Your task to perform on an android device: open wifi settings Image 0: 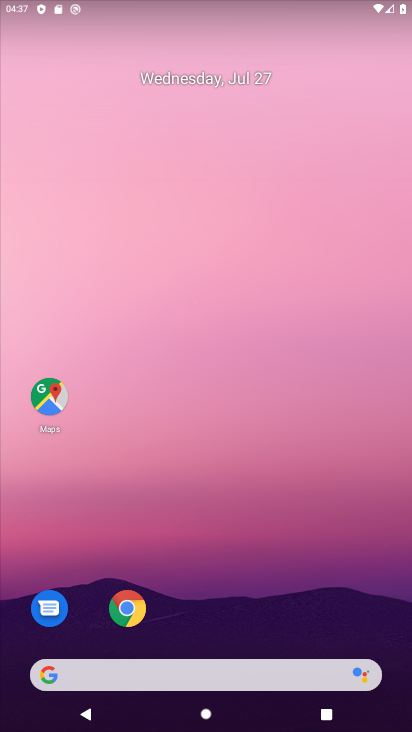
Step 0: press home button
Your task to perform on an android device: open wifi settings Image 1: 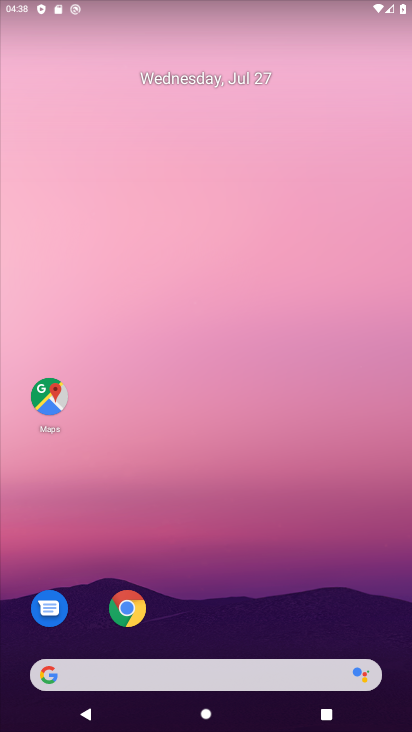
Step 1: drag from (236, 608) to (220, 459)
Your task to perform on an android device: open wifi settings Image 2: 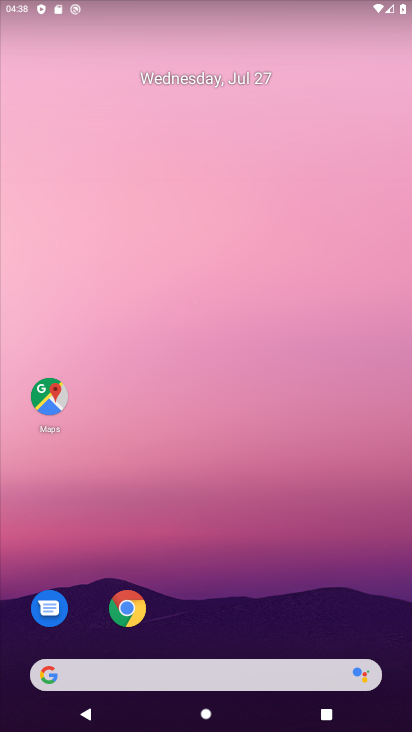
Step 2: drag from (240, 614) to (205, 133)
Your task to perform on an android device: open wifi settings Image 3: 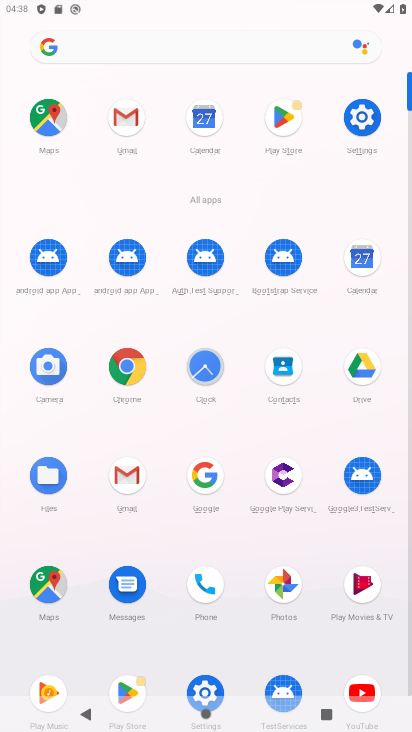
Step 3: click (365, 117)
Your task to perform on an android device: open wifi settings Image 4: 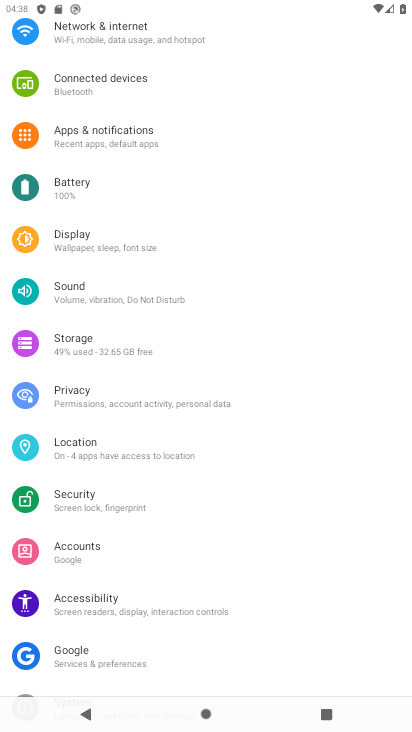
Step 4: click (96, 32)
Your task to perform on an android device: open wifi settings Image 5: 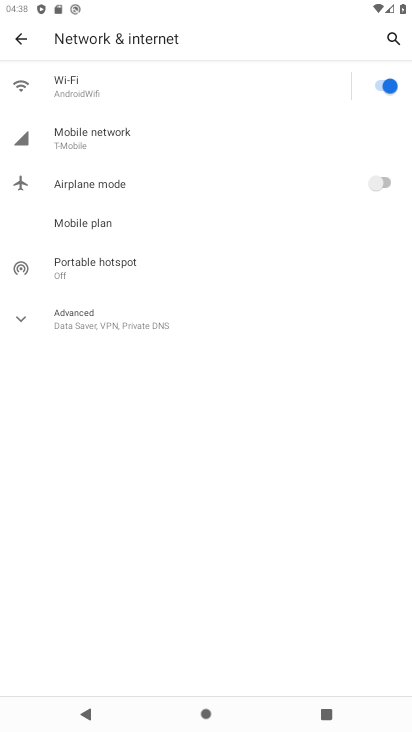
Step 5: click (78, 90)
Your task to perform on an android device: open wifi settings Image 6: 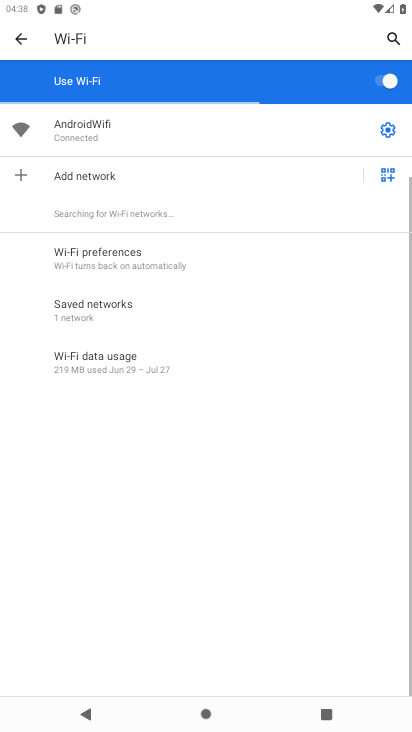
Step 6: task complete